Your task to perform on an android device: turn on sleep mode Image 0: 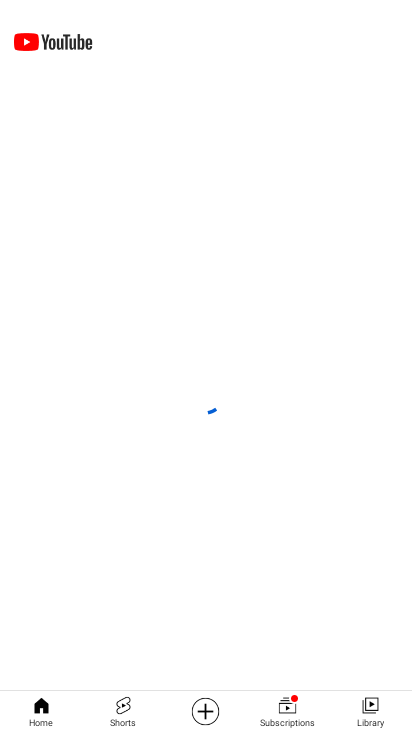
Step 0: drag from (248, 664) to (253, 147)
Your task to perform on an android device: turn on sleep mode Image 1: 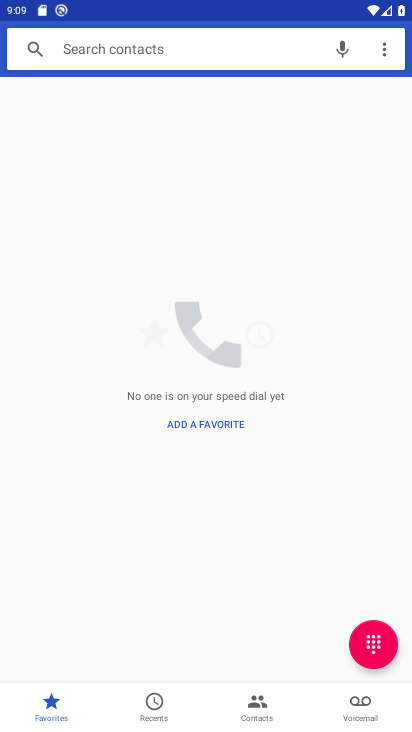
Step 1: press home button
Your task to perform on an android device: turn on sleep mode Image 2: 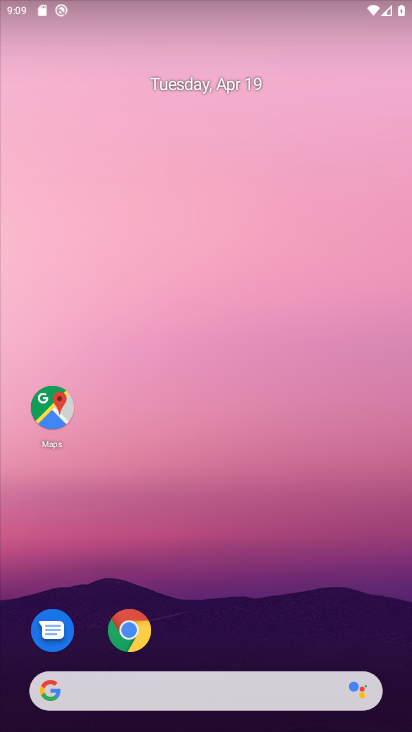
Step 2: drag from (228, 646) to (262, 138)
Your task to perform on an android device: turn on sleep mode Image 3: 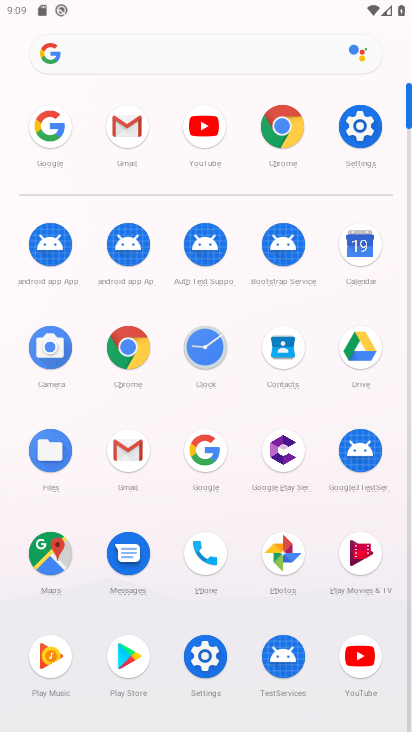
Step 3: click (356, 139)
Your task to perform on an android device: turn on sleep mode Image 4: 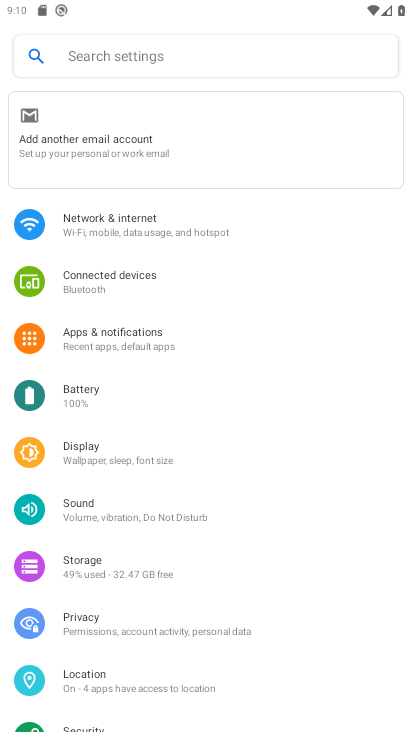
Step 4: click (126, 461)
Your task to perform on an android device: turn on sleep mode Image 5: 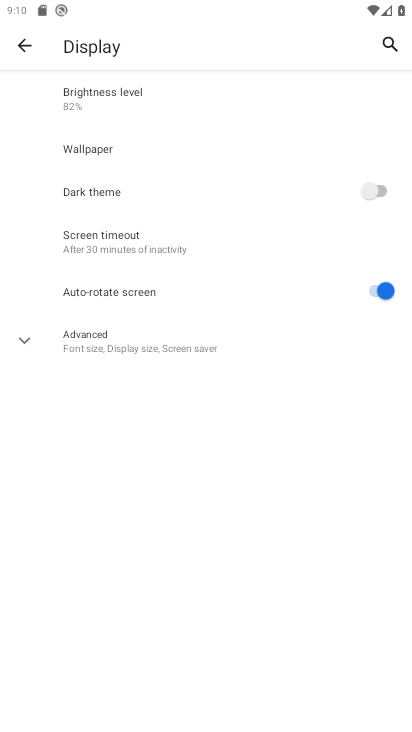
Step 5: click (115, 348)
Your task to perform on an android device: turn on sleep mode Image 6: 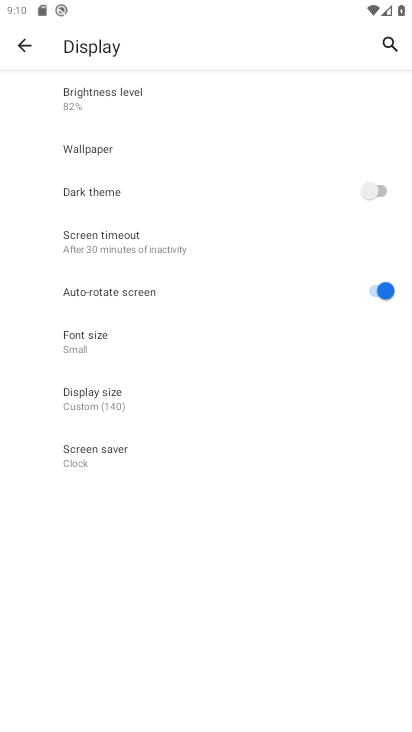
Step 6: task complete